Your task to perform on an android device: see tabs open on other devices in the chrome app Image 0: 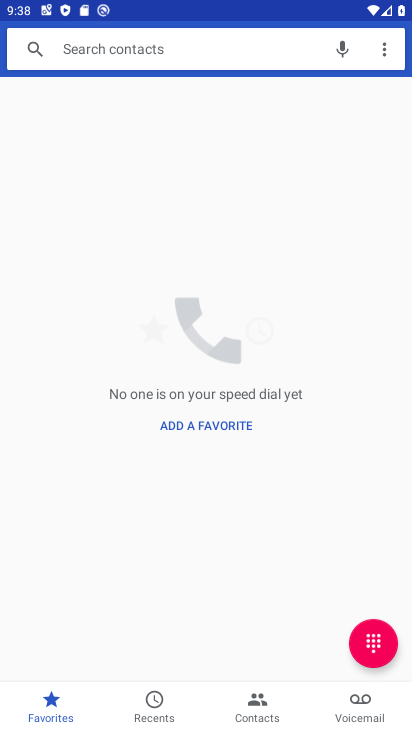
Step 0: press home button
Your task to perform on an android device: see tabs open on other devices in the chrome app Image 1: 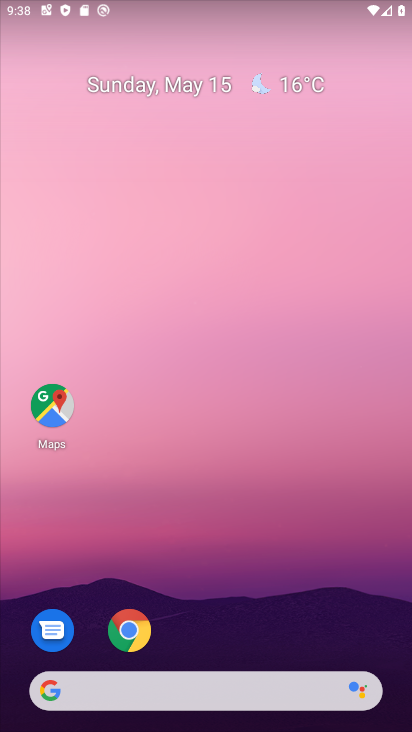
Step 1: click (135, 633)
Your task to perform on an android device: see tabs open on other devices in the chrome app Image 2: 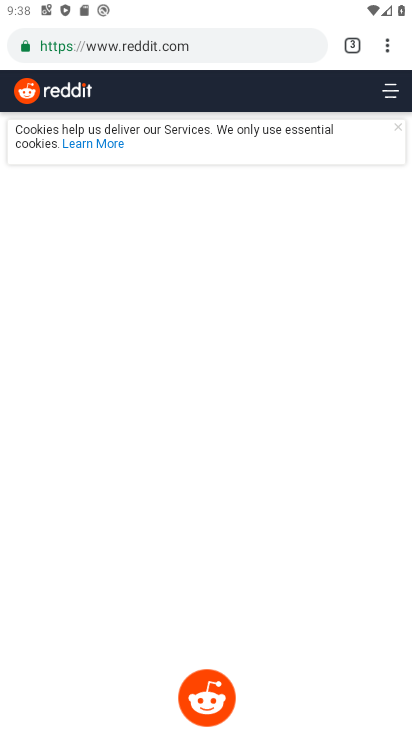
Step 2: click (386, 39)
Your task to perform on an android device: see tabs open on other devices in the chrome app Image 3: 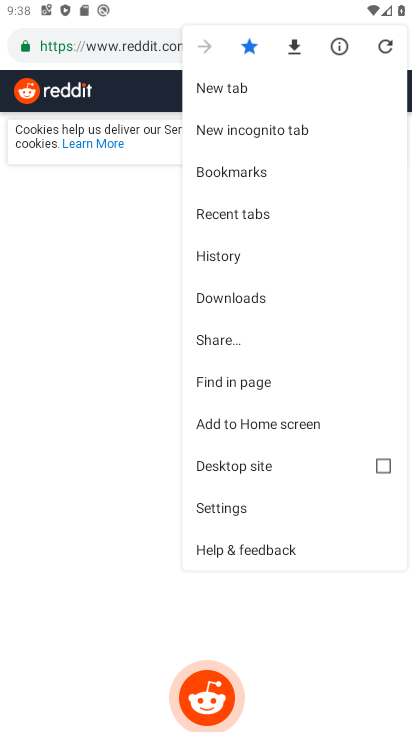
Step 3: click (259, 206)
Your task to perform on an android device: see tabs open on other devices in the chrome app Image 4: 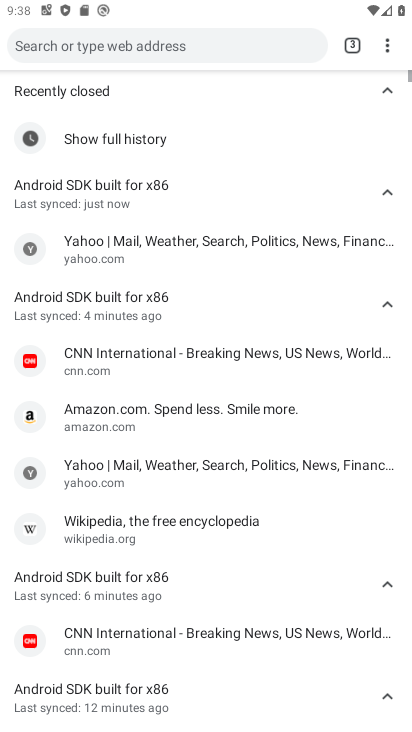
Step 4: task complete